Your task to perform on an android device: Go to Android settings Image 0: 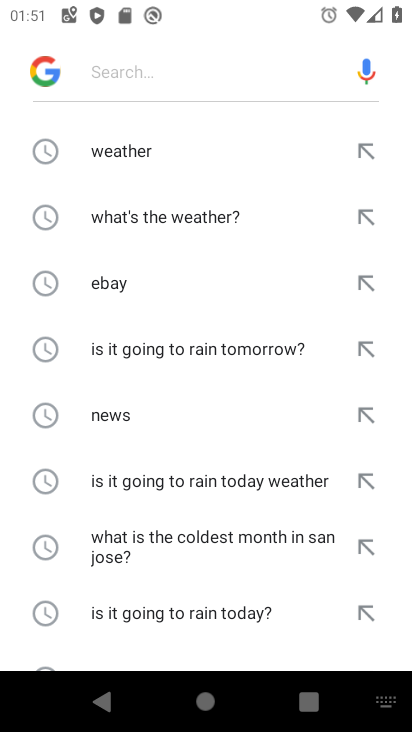
Step 0: press home button
Your task to perform on an android device: Go to Android settings Image 1: 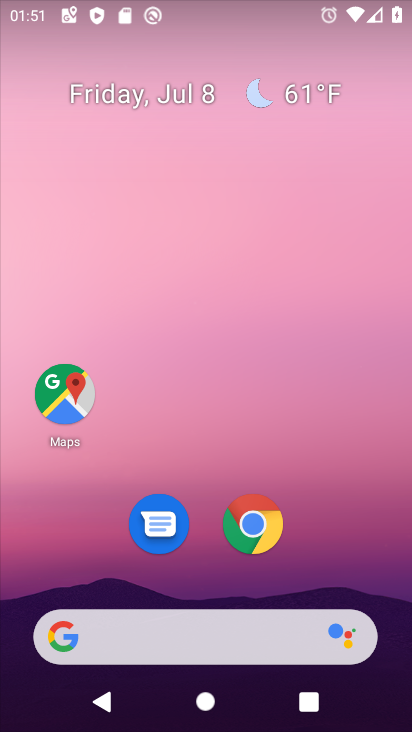
Step 1: drag from (318, 522) to (325, 28)
Your task to perform on an android device: Go to Android settings Image 2: 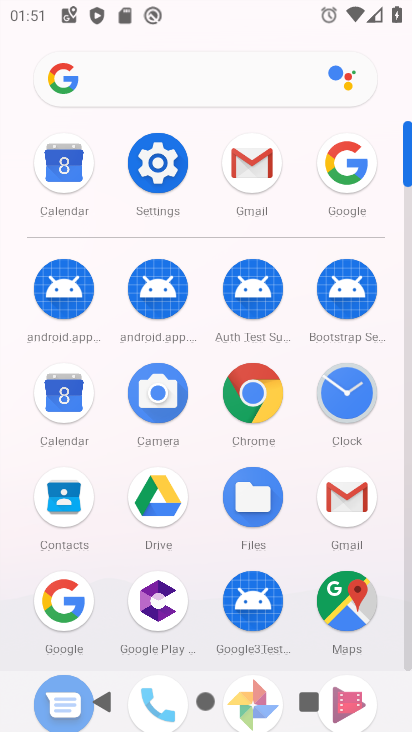
Step 2: click (163, 172)
Your task to perform on an android device: Go to Android settings Image 3: 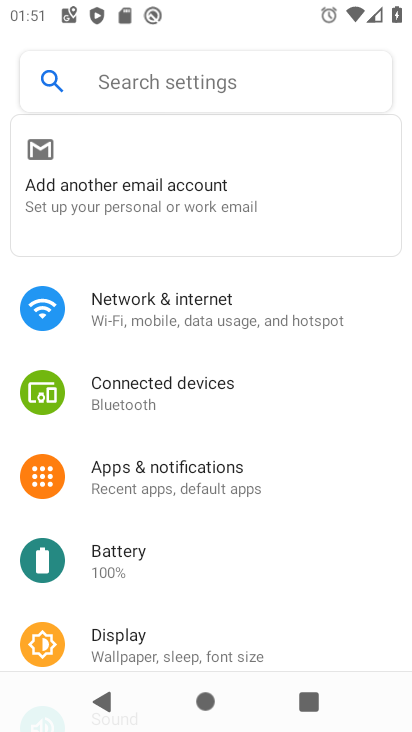
Step 3: drag from (224, 614) to (204, 154)
Your task to perform on an android device: Go to Android settings Image 4: 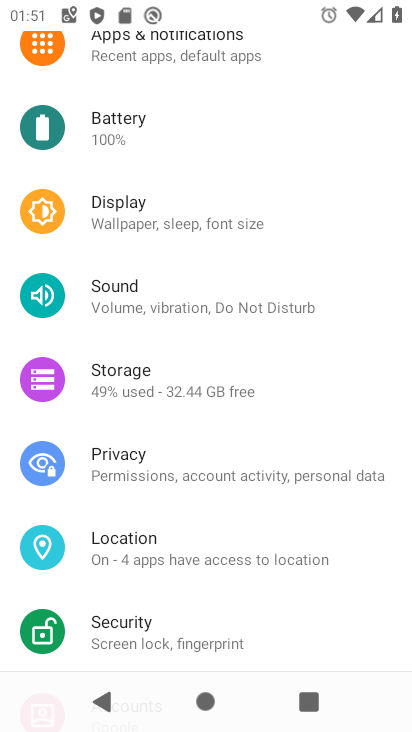
Step 4: drag from (255, 596) to (219, 99)
Your task to perform on an android device: Go to Android settings Image 5: 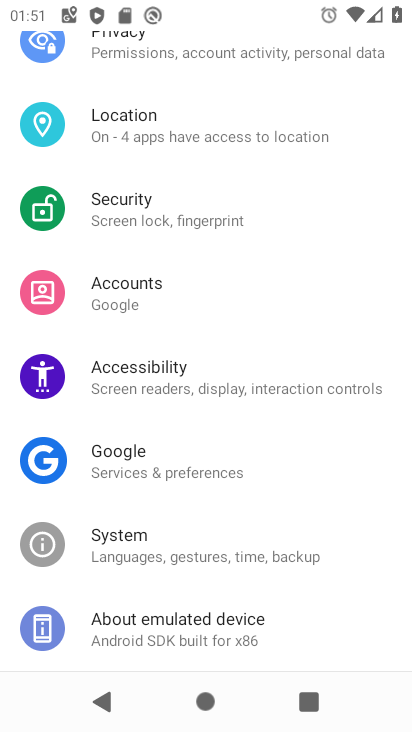
Step 5: click (219, 631)
Your task to perform on an android device: Go to Android settings Image 6: 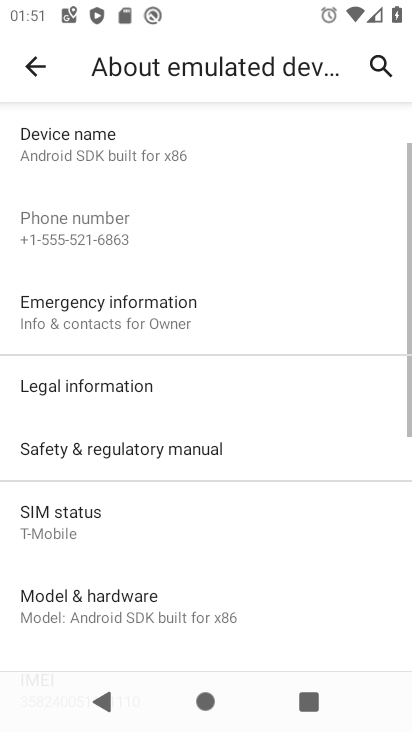
Step 6: task complete